Your task to perform on an android device: turn off picture-in-picture Image 0: 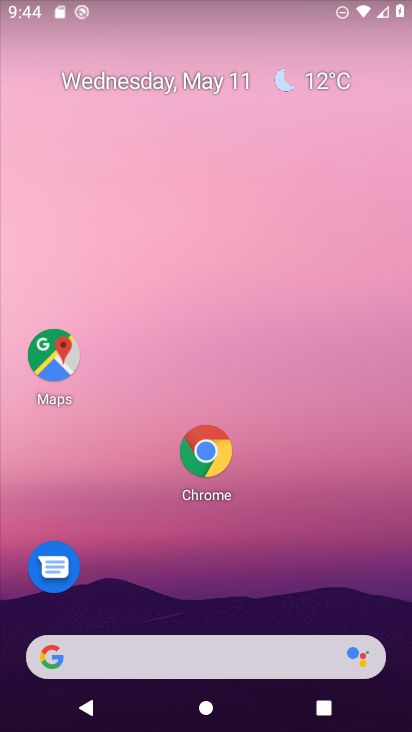
Step 0: drag from (215, 453) to (241, 412)
Your task to perform on an android device: turn off picture-in-picture Image 1: 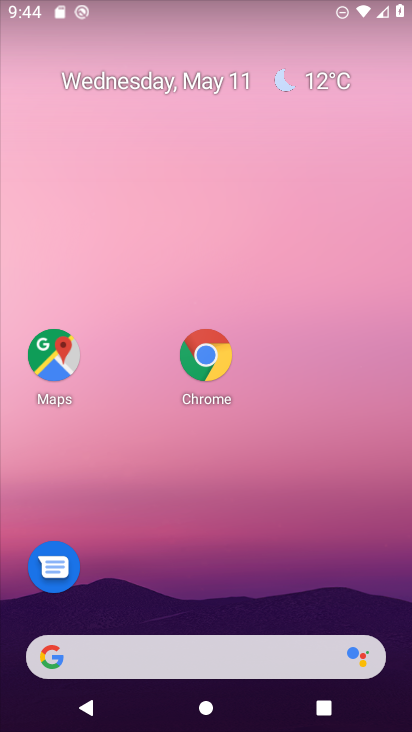
Step 1: click (331, 280)
Your task to perform on an android device: turn off picture-in-picture Image 2: 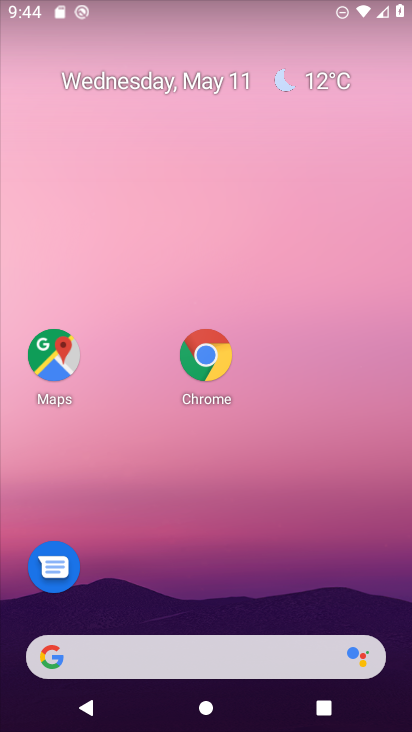
Step 2: click (219, 350)
Your task to perform on an android device: turn off picture-in-picture Image 3: 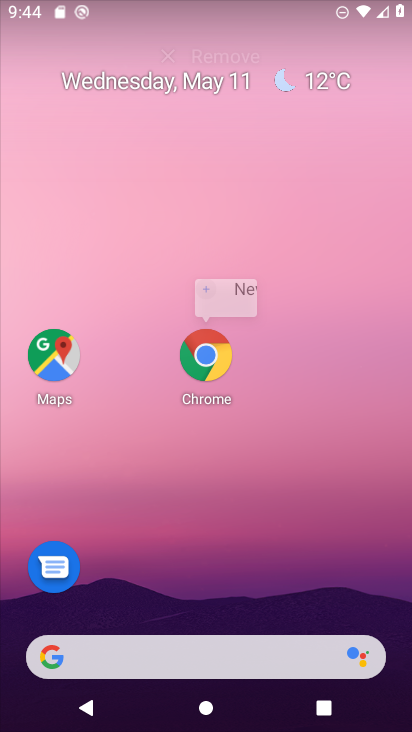
Step 3: click (337, 179)
Your task to perform on an android device: turn off picture-in-picture Image 4: 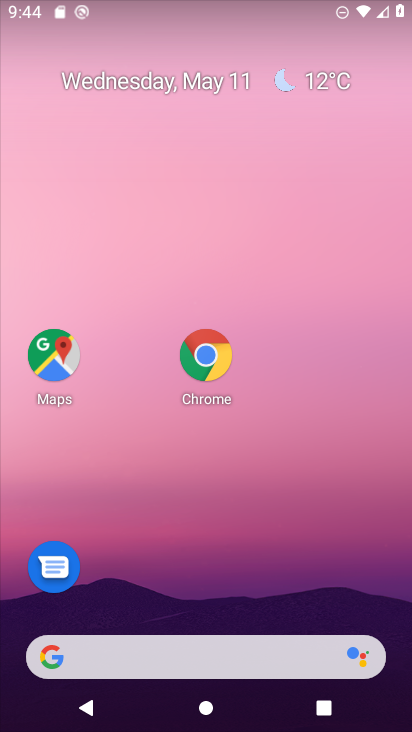
Step 4: click (213, 345)
Your task to perform on an android device: turn off picture-in-picture Image 5: 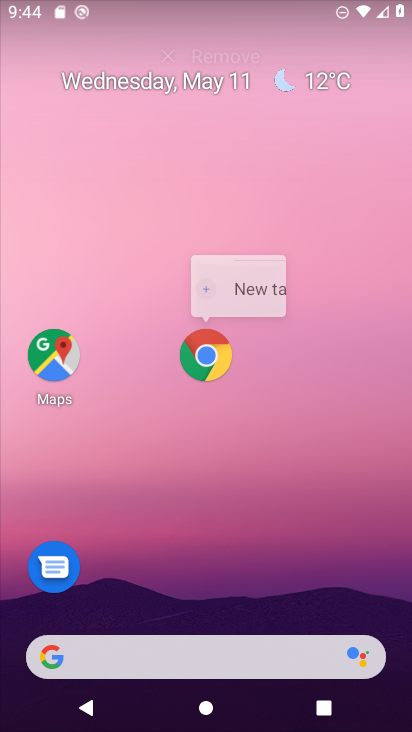
Step 5: click (329, 189)
Your task to perform on an android device: turn off picture-in-picture Image 6: 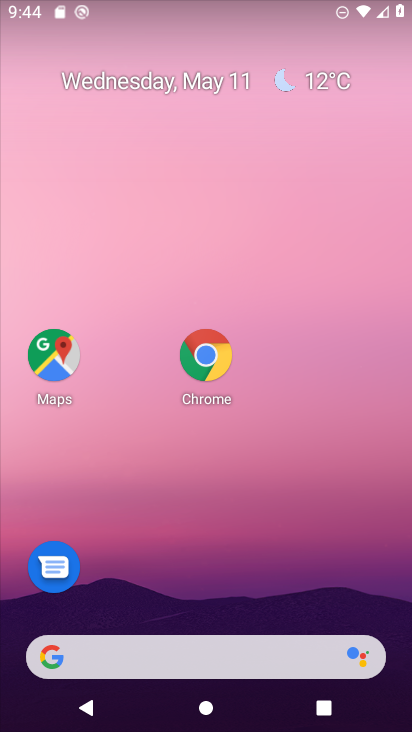
Step 6: drag from (224, 354) to (275, 282)
Your task to perform on an android device: turn off picture-in-picture Image 7: 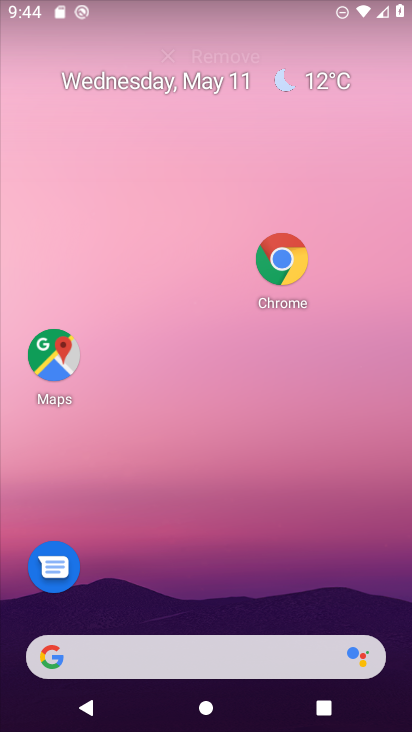
Step 7: click (326, 187)
Your task to perform on an android device: turn off picture-in-picture Image 8: 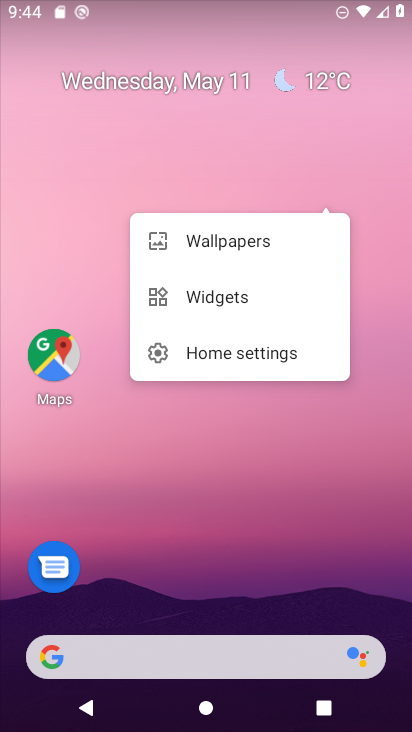
Step 8: click (178, 512)
Your task to perform on an android device: turn off picture-in-picture Image 9: 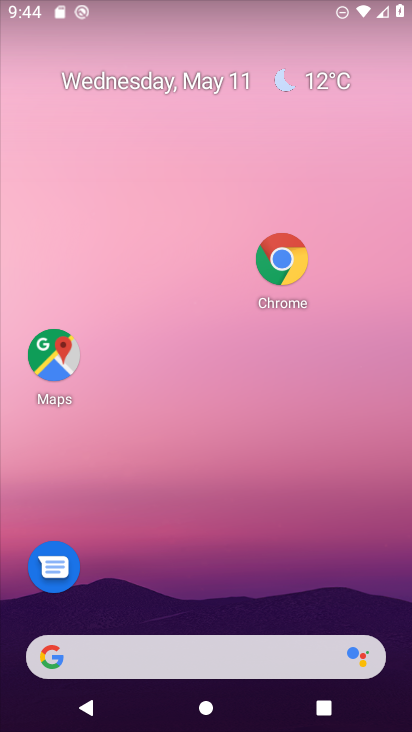
Step 9: drag from (290, 261) to (184, 520)
Your task to perform on an android device: turn off picture-in-picture Image 10: 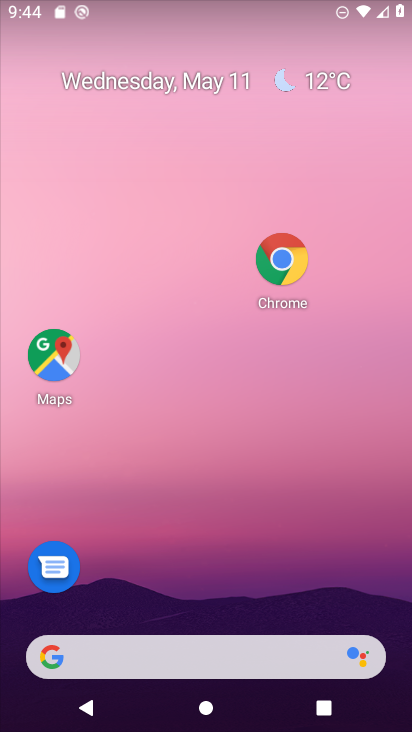
Step 10: drag from (271, 262) to (159, 567)
Your task to perform on an android device: turn off picture-in-picture Image 11: 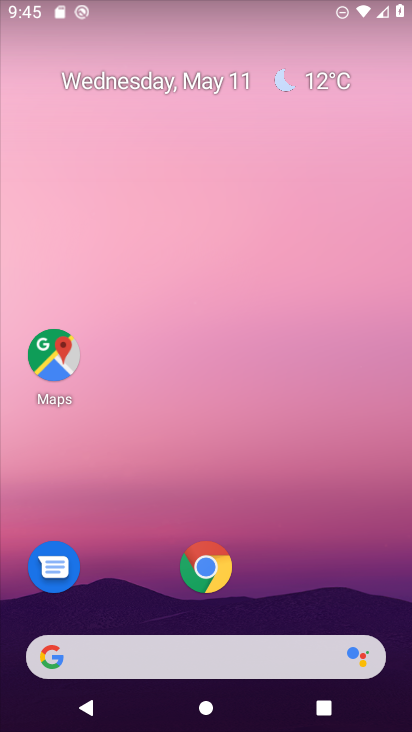
Step 11: click (206, 563)
Your task to perform on an android device: turn off picture-in-picture Image 12: 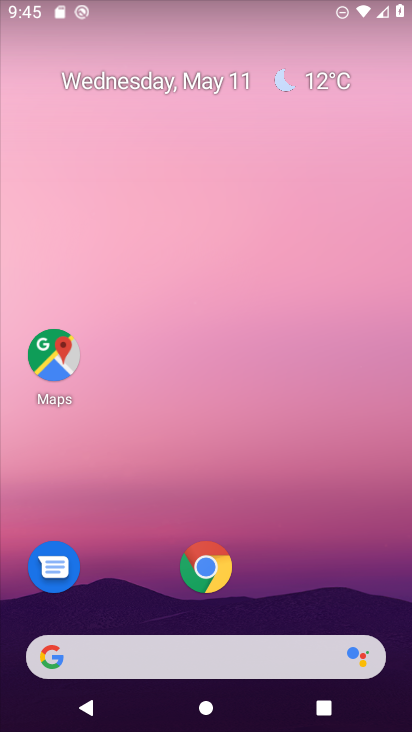
Step 12: click (314, 398)
Your task to perform on an android device: turn off picture-in-picture Image 13: 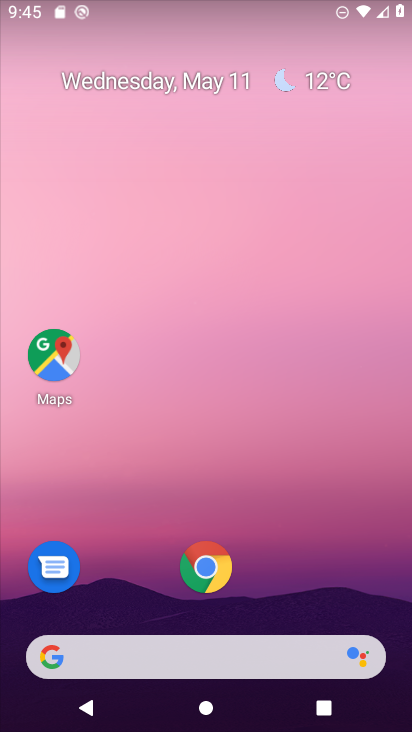
Step 13: drag from (203, 564) to (242, 504)
Your task to perform on an android device: turn off picture-in-picture Image 14: 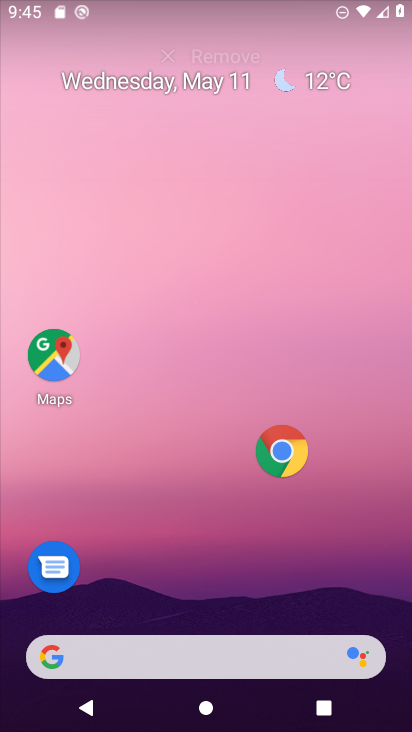
Step 14: click (321, 401)
Your task to perform on an android device: turn off picture-in-picture Image 15: 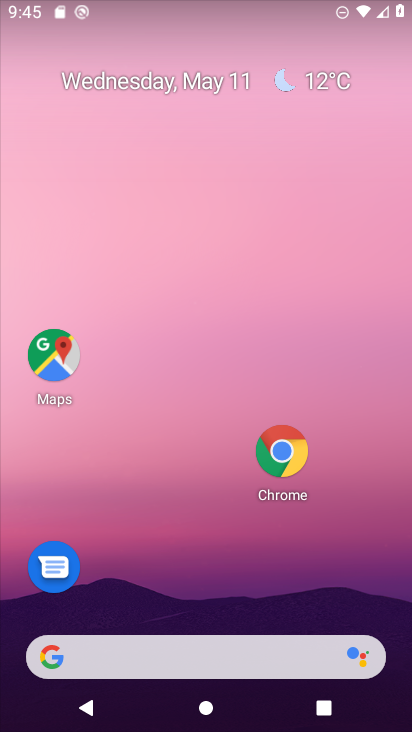
Step 15: drag from (285, 444) to (293, 385)
Your task to perform on an android device: turn off picture-in-picture Image 16: 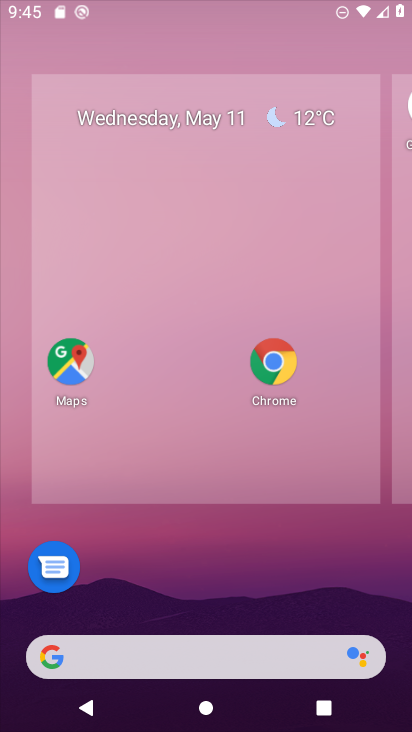
Step 16: click (231, 280)
Your task to perform on an android device: turn off picture-in-picture Image 17: 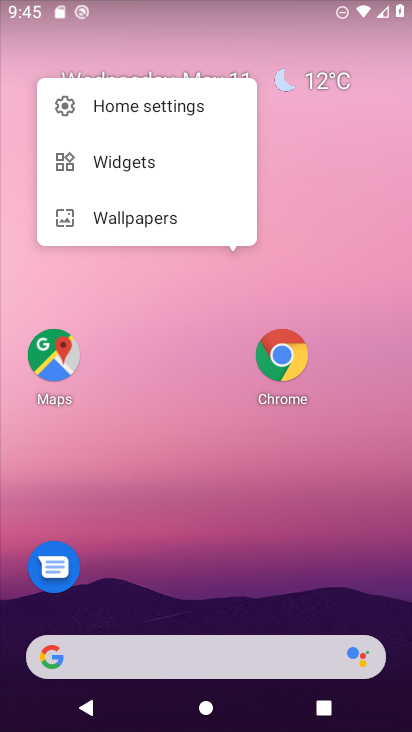
Step 17: click (273, 345)
Your task to perform on an android device: turn off picture-in-picture Image 18: 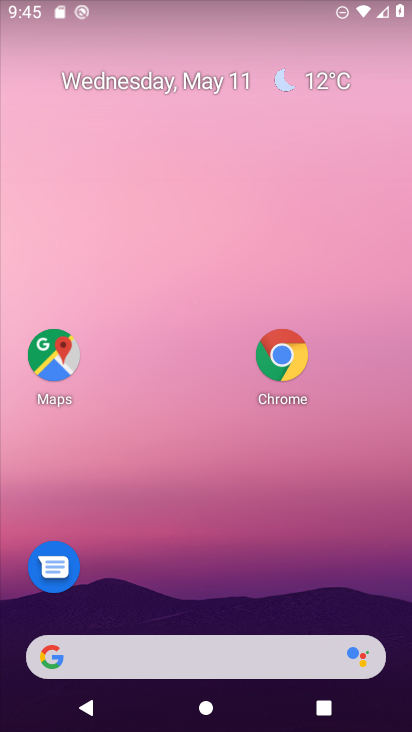
Step 18: drag from (283, 343) to (281, 308)
Your task to perform on an android device: turn off picture-in-picture Image 19: 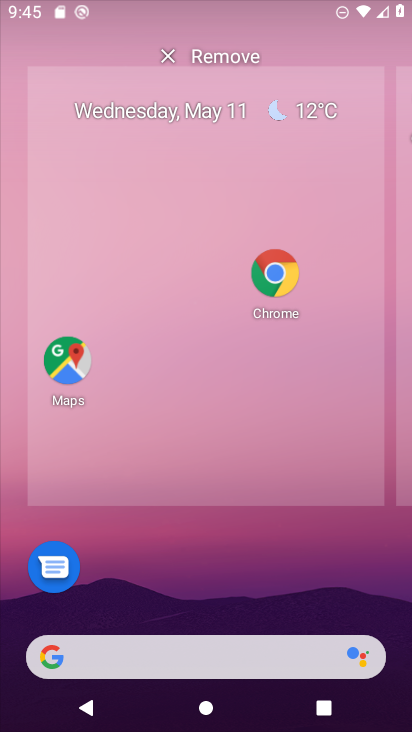
Step 19: click (233, 185)
Your task to perform on an android device: turn off picture-in-picture Image 20: 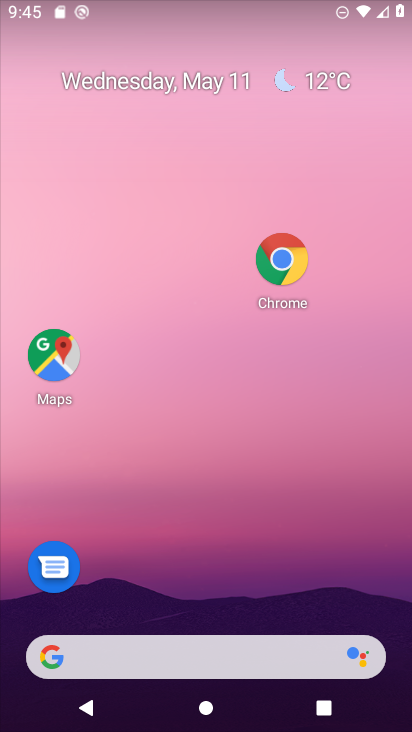
Step 20: click (283, 245)
Your task to perform on an android device: turn off picture-in-picture Image 21: 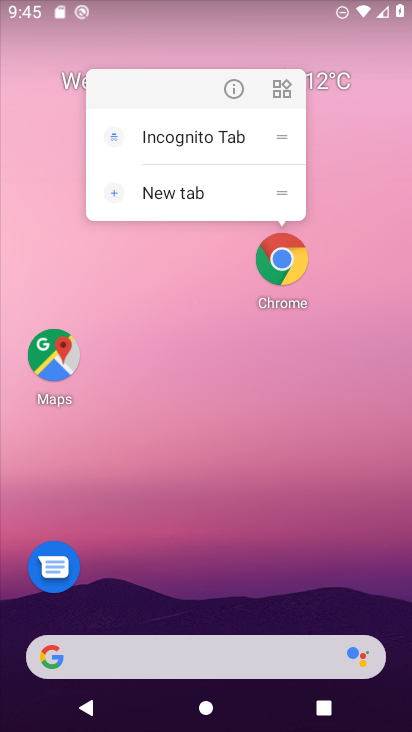
Step 21: click (238, 92)
Your task to perform on an android device: turn off picture-in-picture Image 22: 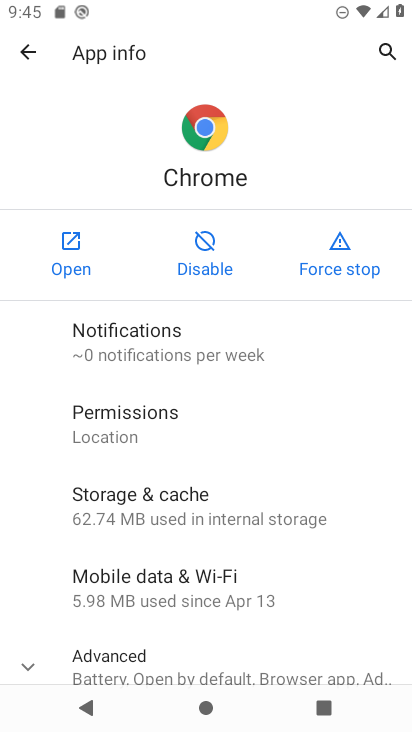
Step 22: drag from (151, 638) to (253, 374)
Your task to perform on an android device: turn off picture-in-picture Image 23: 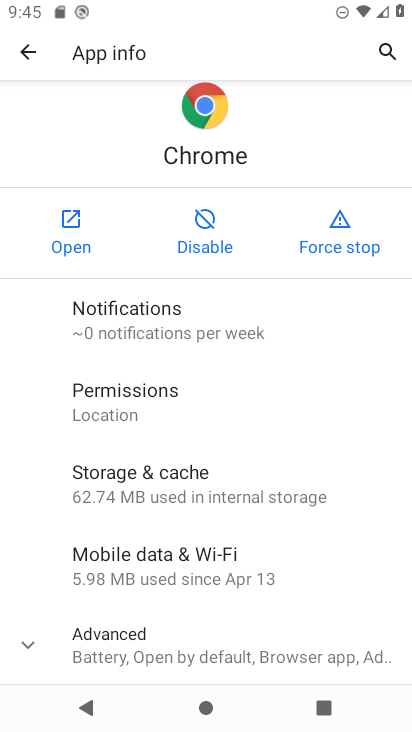
Step 23: click (125, 634)
Your task to perform on an android device: turn off picture-in-picture Image 24: 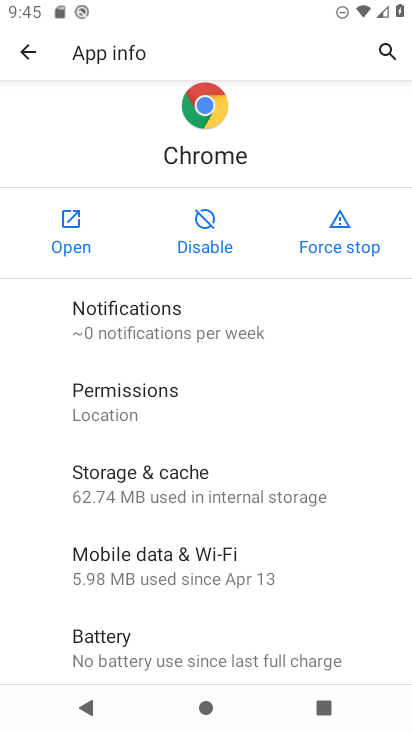
Step 24: drag from (135, 644) to (334, 205)
Your task to perform on an android device: turn off picture-in-picture Image 25: 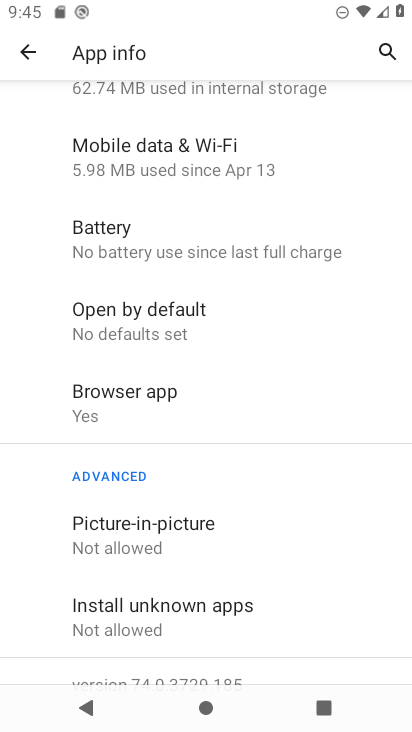
Step 25: click (166, 528)
Your task to perform on an android device: turn off picture-in-picture Image 26: 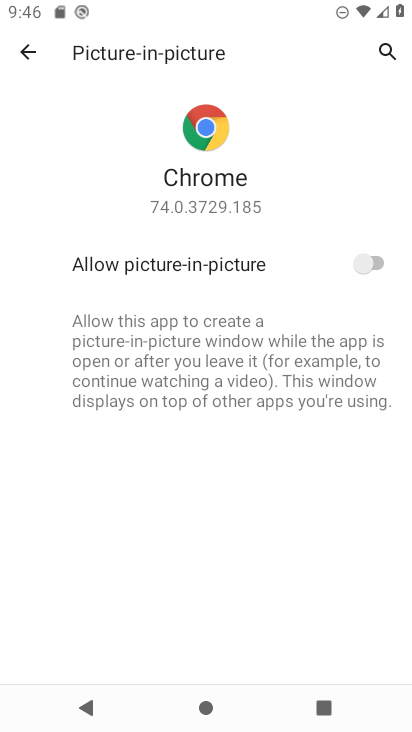
Step 26: task complete